Your task to perform on an android device: open chrome and create a bookmark for the current page Image 0: 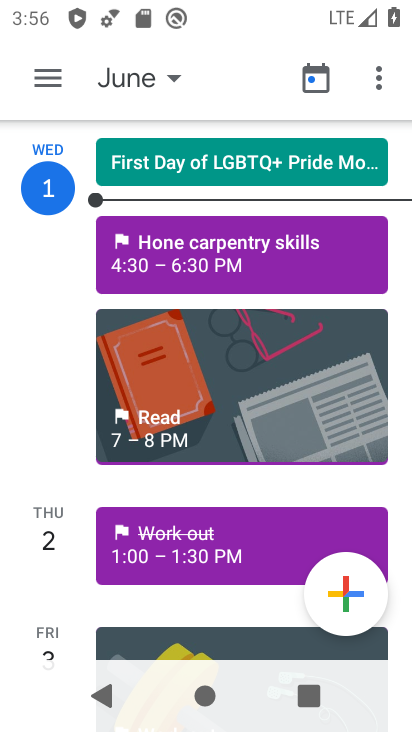
Step 0: press home button
Your task to perform on an android device: open chrome and create a bookmark for the current page Image 1: 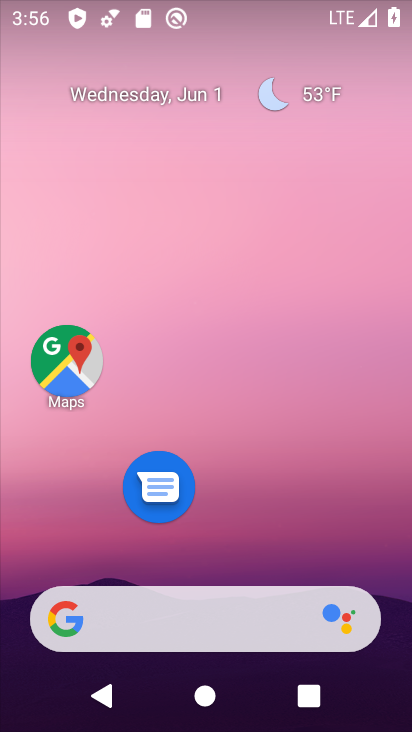
Step 1: drag from (221, 474) to (349, 1)
Your task to perform on an android device: open chrome and create a bookmark for the current page Image 2: 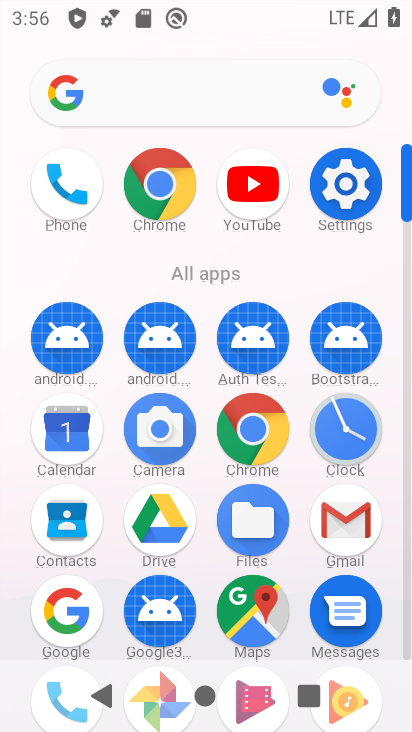
Step 2: click (168, 210)
Your task to perform on an android device: open chrome and create a bookmark for the current page Image 3: 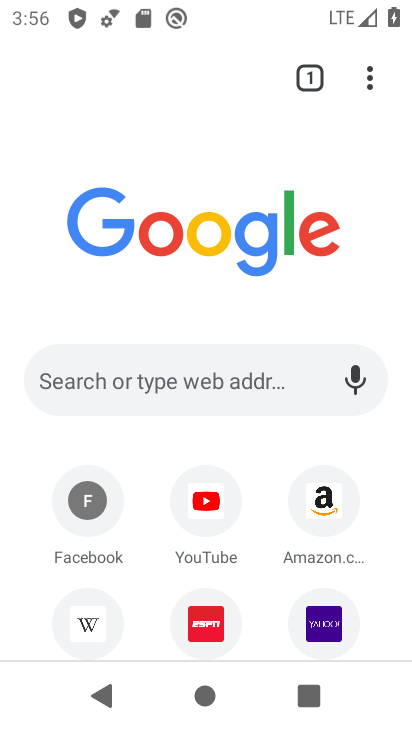
Step 3: click (367, 77)
Your task to perform on an android device: open chrome and create a bookmark for the current page Image 4: 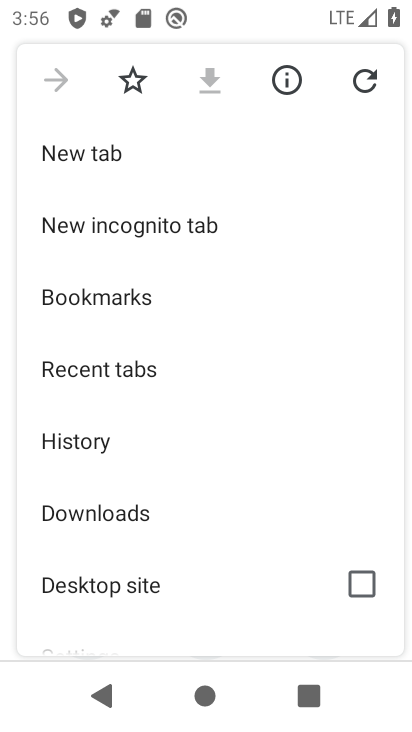
Step 4: click (122, 79)
Your task to perform on an android device: open chrome and create a bookmark for the current page Image 5: 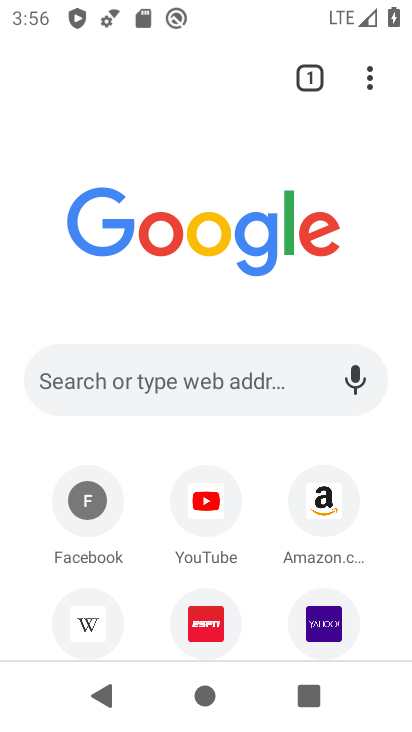
Step 5: task complete